Your task to perform on an android device: toggle improve location accuracy Image 0: 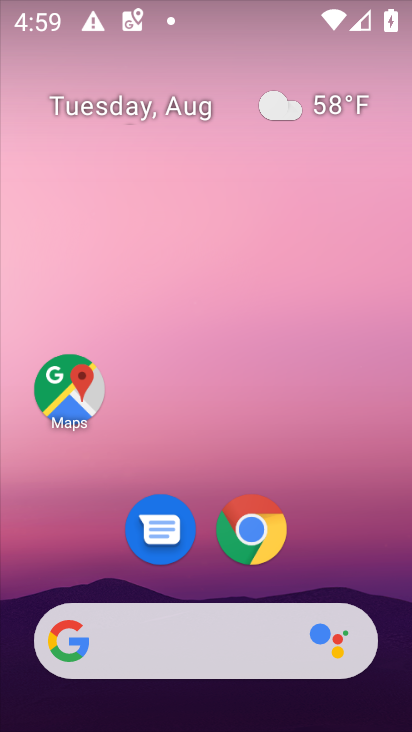
Step 0: drag from (217, 465) to (211, 150)
Your task to perform on an android device: toggle improve location accuracy Image 1: 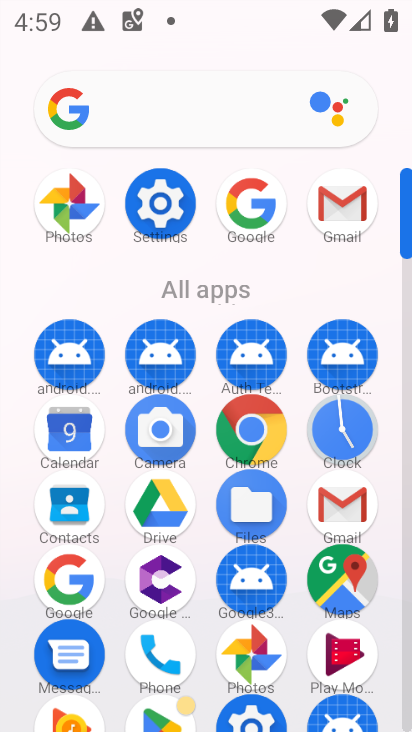
Step 1: click (175, 187)
Your task to perform on an android device: toggle improve location accuracy Image 2: 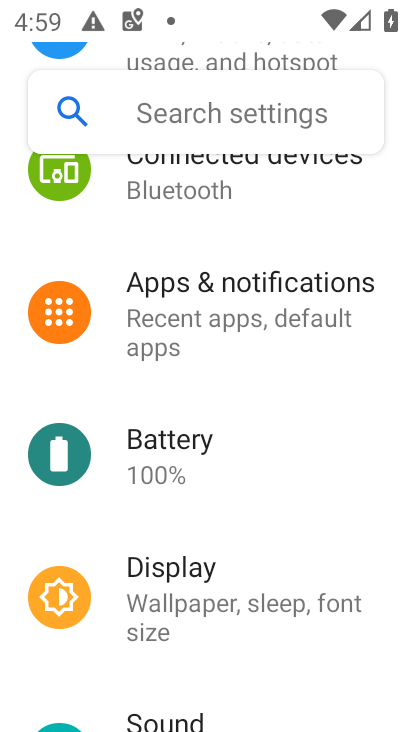
Step 2: drag from (294, 641) to (253, 204)
Your task to perform on an android device: toggle improve location accuracy Image 3: 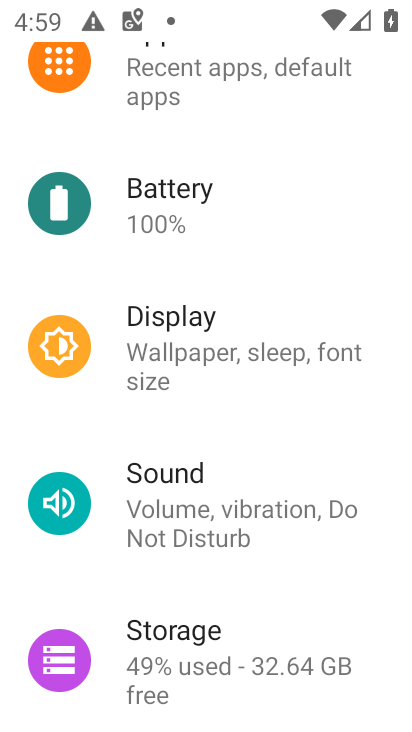
Step 3: drag from (228, 538) to (206, 179)
Your task to perform on an android device: toggle improve location accuracy Image 4: 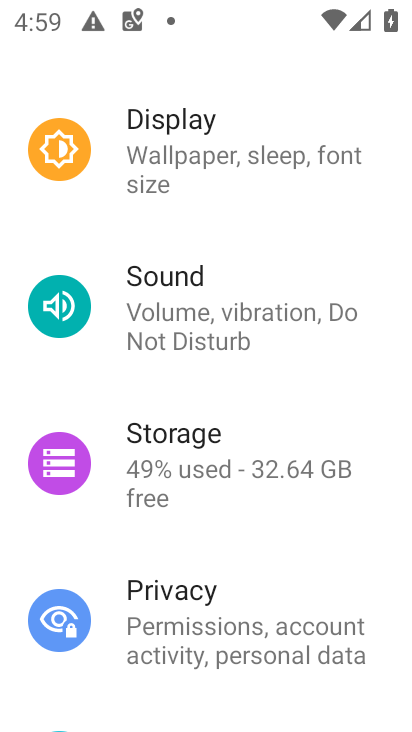
Step 4: drag from (230, 538) to (226, 220)
Your task to perform on an android device: toggle improve location accuracy Image 5: 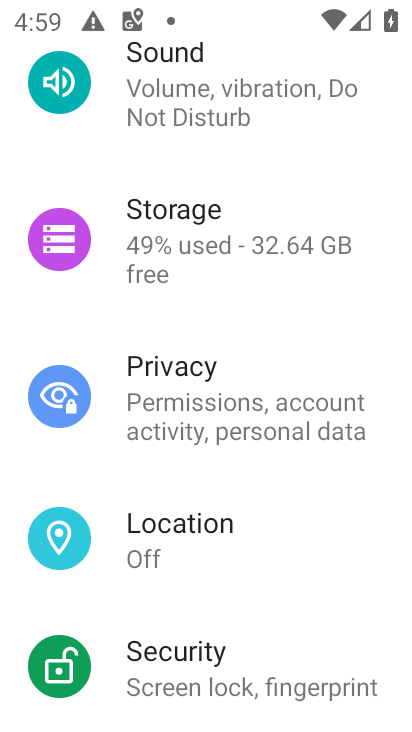
Step 5: click (208, 531)
Your task to perform on an android device: toggle improve location accuracy Image 6: 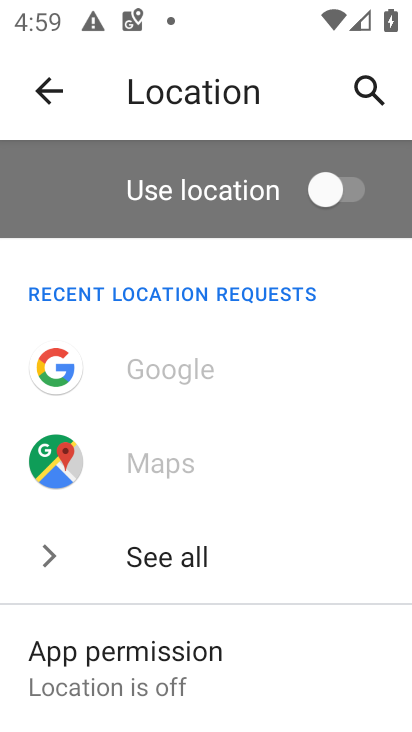
Step 6: drag from (192, 625) to (206, 301)
Your task to perform on an android device: toggle improve location accuracy Image 7: 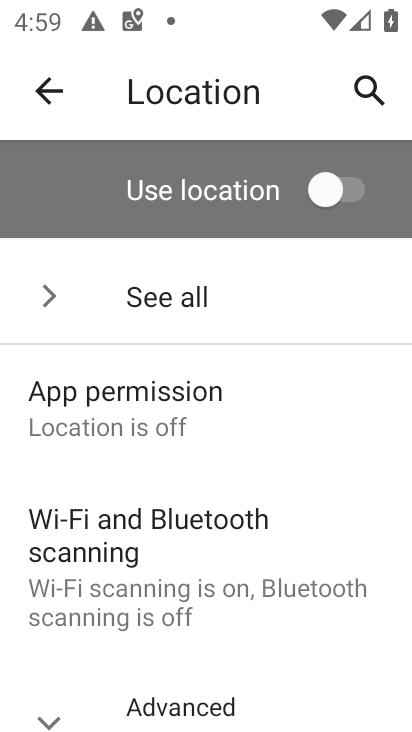
Step 7: drag from (206, 608) to (234, 308)
Your task to perform on an android device: toggle improve location accuracy Image 8: 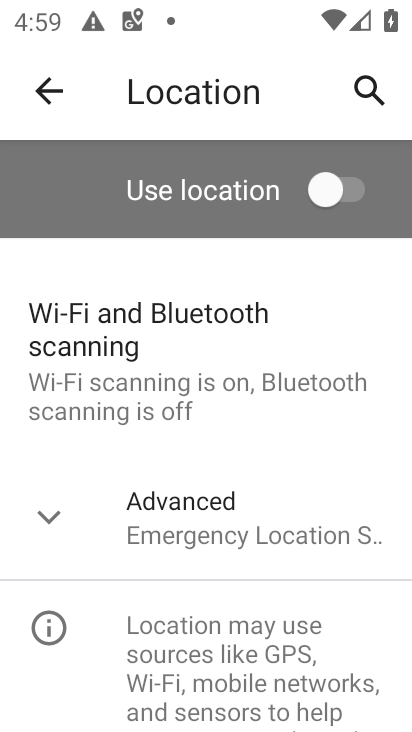
Step 8: click (169, 536)
Your task to perform on an android device: toggle improve location accuracy Image 9: 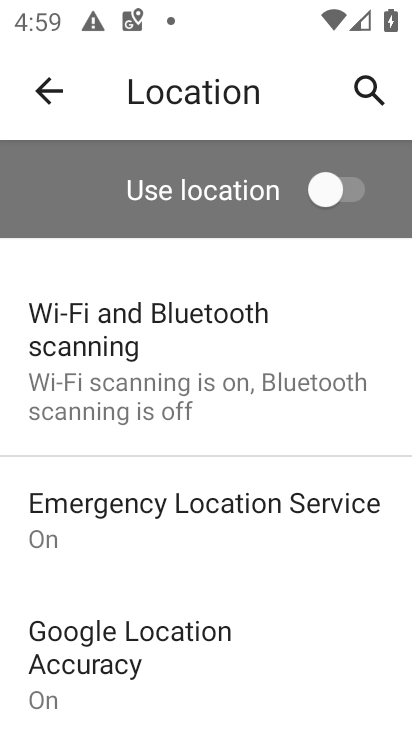
Step 9: drag from (206, 636) to (224, 396)
Your task to perform on an android device: toggle improve location accuracy Image 10: 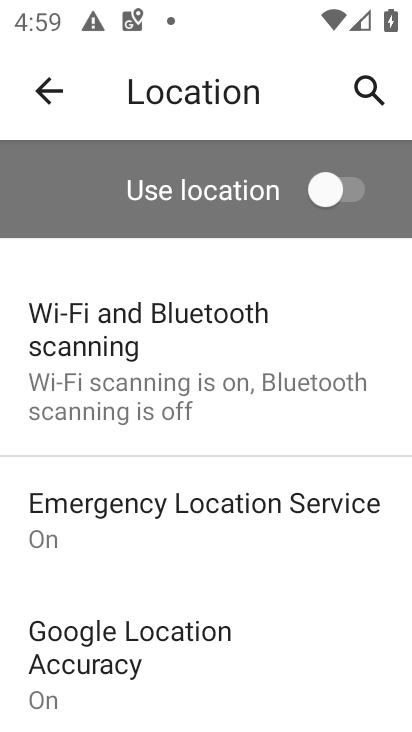
Step 10: drag from (221, 668) to (187, 385)
Your task to perform on an android device: toggle improve location accuracy Image 11: 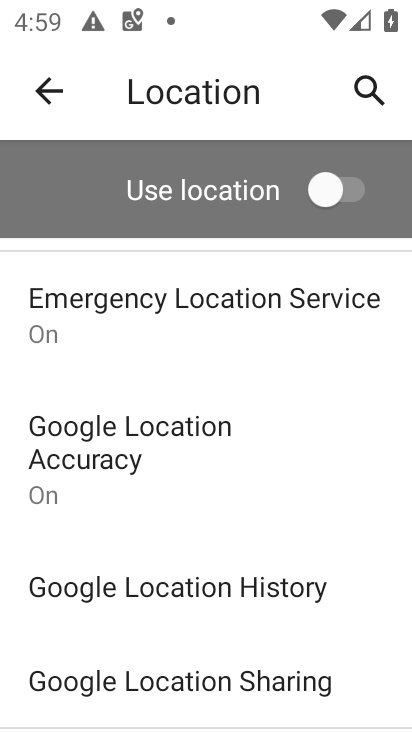
Step 11: click (176, 438)
Your task to perform on an android device: toggle improve location accuracy Image 12: 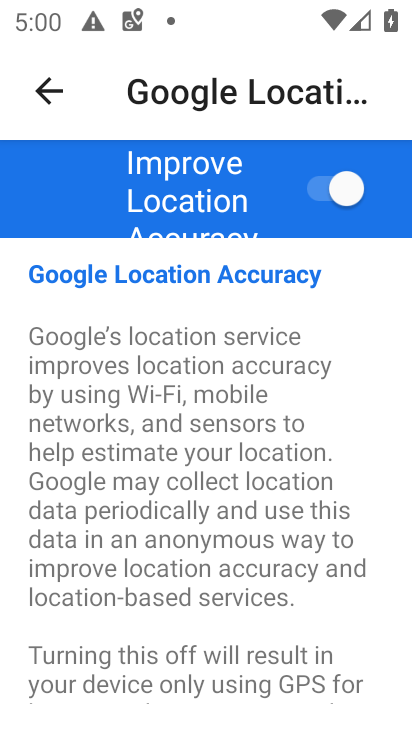
Step 12: click (331, 171)
Your task to perform on an android device: toggle improve location accuracy Image 13: 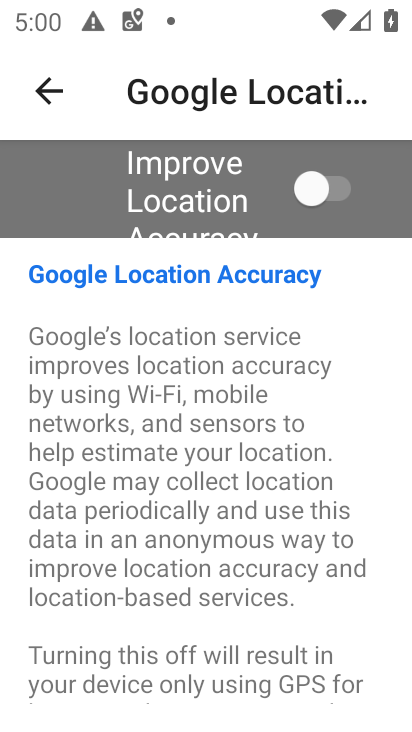
Step 13: task complete